Your task to perform on an android device: toggle location history Image 0: 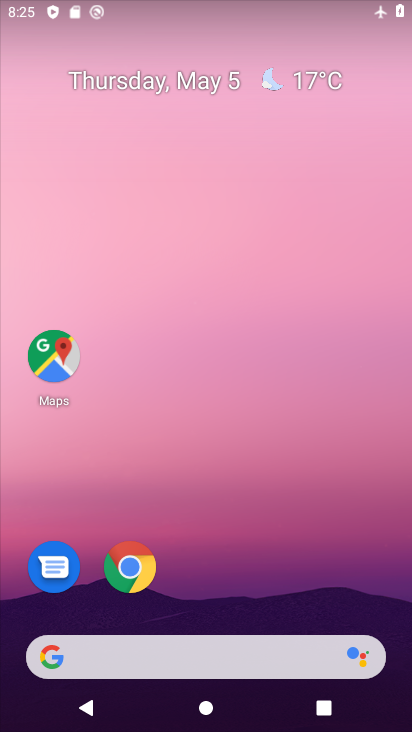
Step 0: drag from (231, 722) to (198, 166)
Your task to perform on an android device: toggle location history Image 1: 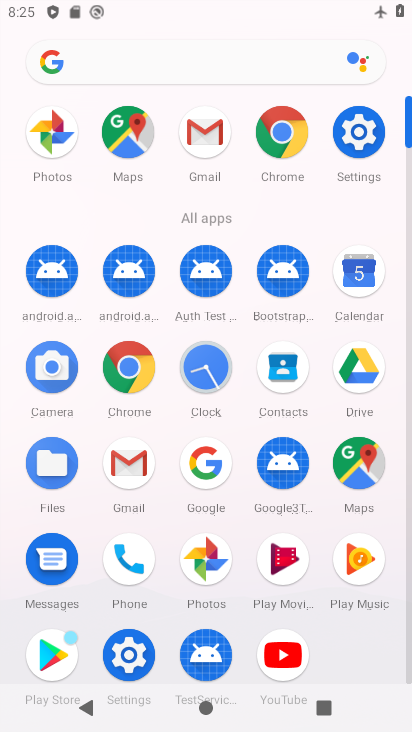
Step 1: click (364, 130)
Your task to perform on an android device: toggle location history Image 2: 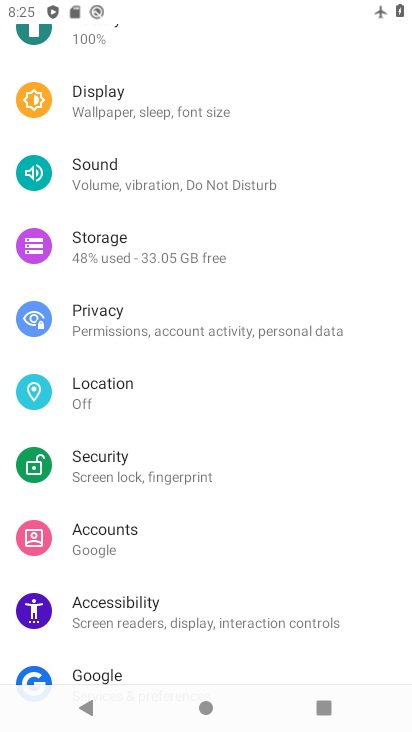
Step 2: click (91, 382)
Your task to perform on an android device: toggle location history Image 3: 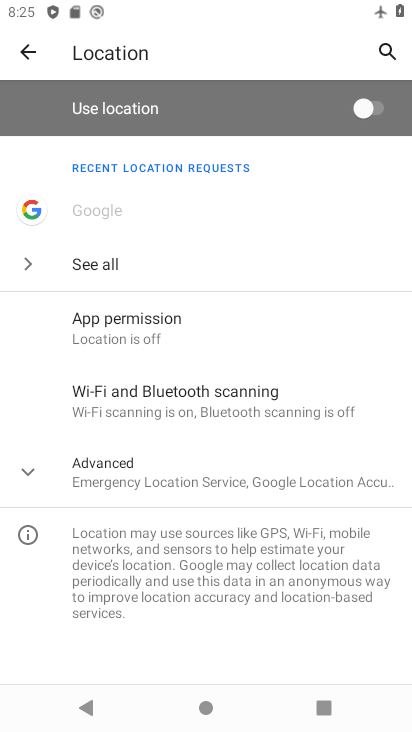
Step 3: click (108, 472)
Your task to perform on an android device: toggle location history Image 4: 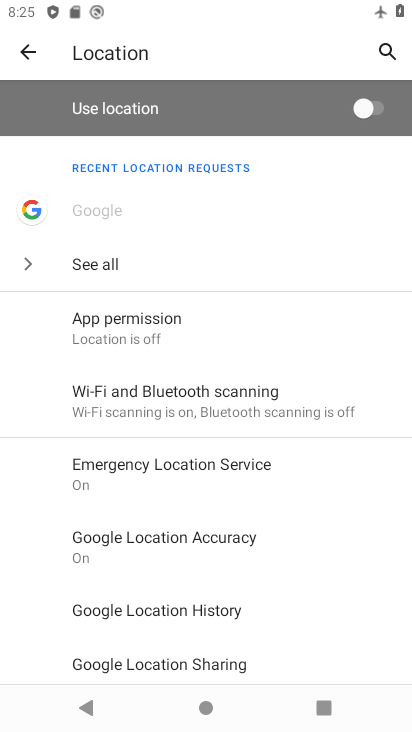
Step 4: click (161, 613)
Your task to perform on an android device: toggle location history Image 5: 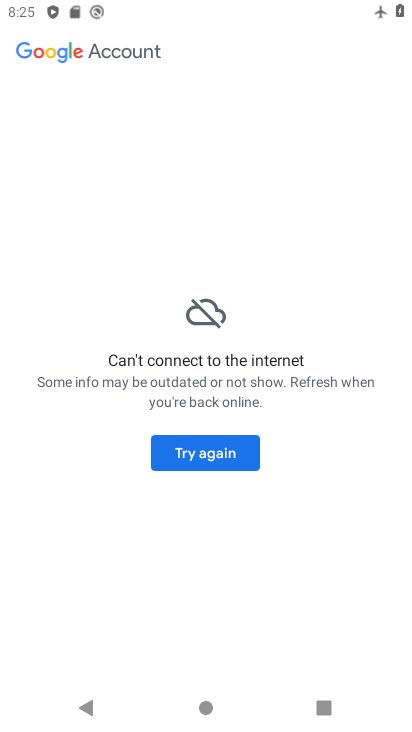
Step 5: click (210, 453)
Your task to perform on an android device: toggle location history Image 6: 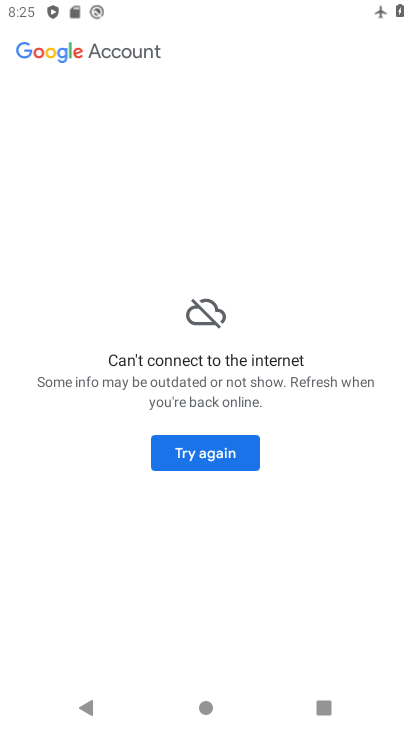
Step 6: task complete